Your task to perform on an android device: open wifi settings Image 0: 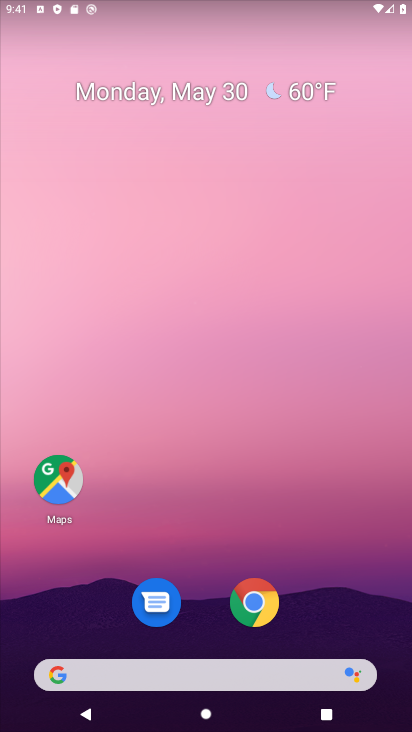
Step 0: drag from (201, 636) to (205, 200)
Your task to perform on an android device: open wifi settings Image 1: 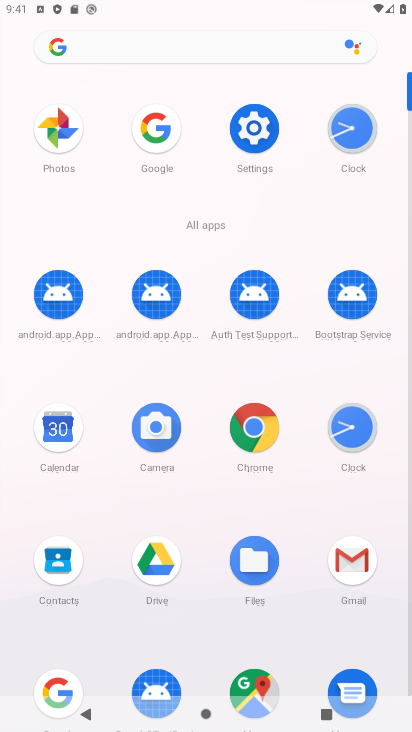
Step 1: click (242, 112)
Your task to perform on an android device: open wifi settings Image 2: 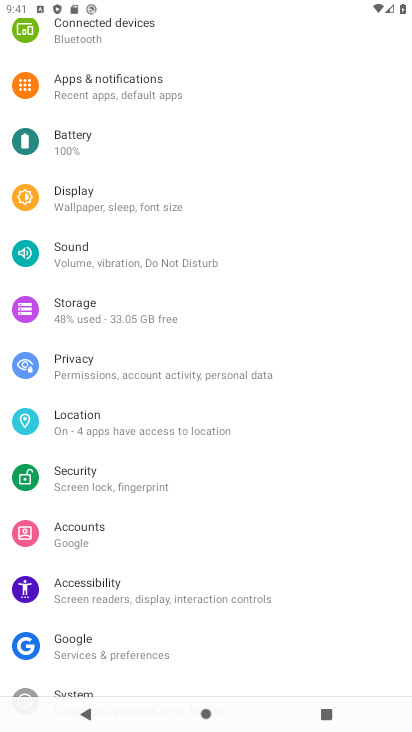
Step 2: drag from (118, 197) to (133, 545)
Your task to perform on an android device: open wifi settings Image 3: 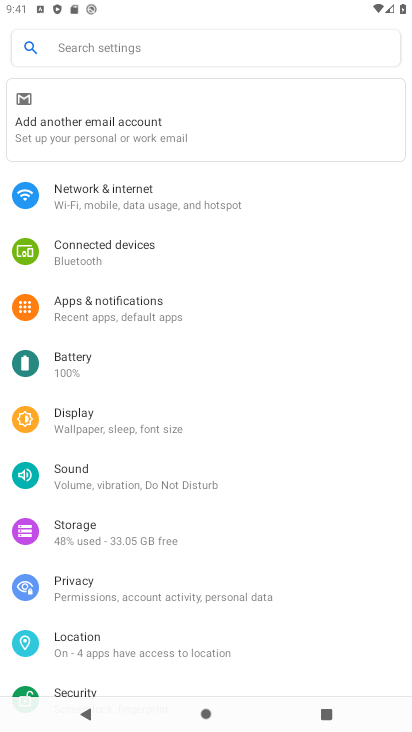
Step 3: click (116, 198)
Your task to perform on an android device: open wifi settings Image 4: 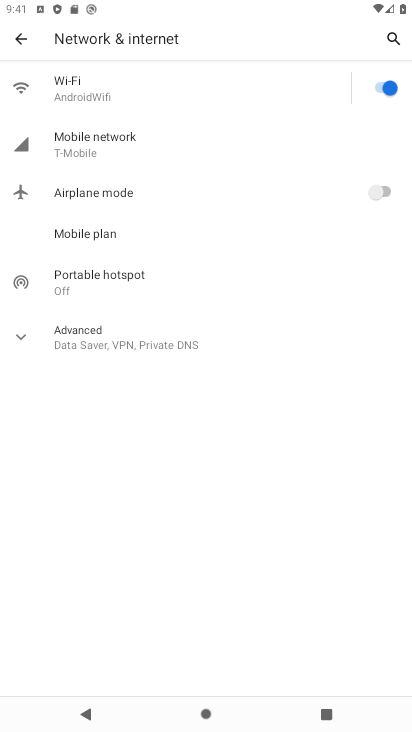
Step 4: click (156, 82)
Your task to perform on an android device: open wifi settings Image 5: 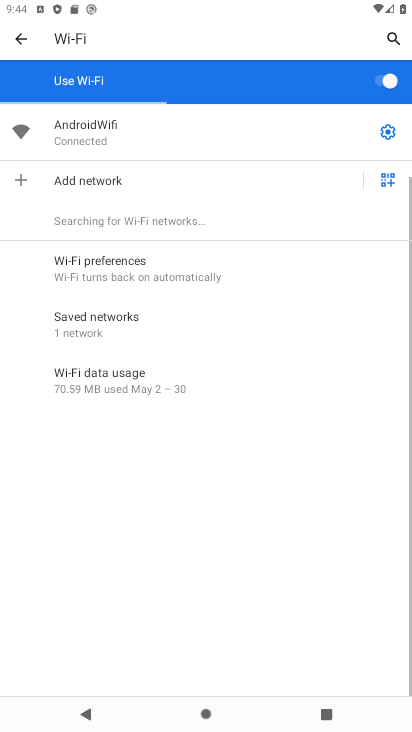
Step 5: task complete